Your task to perform on an android device: open app "Messenger Lite" (install if not already installed) and enter user name: "cataclysmic@outlook.com" and password: "victoriously" Image 0: 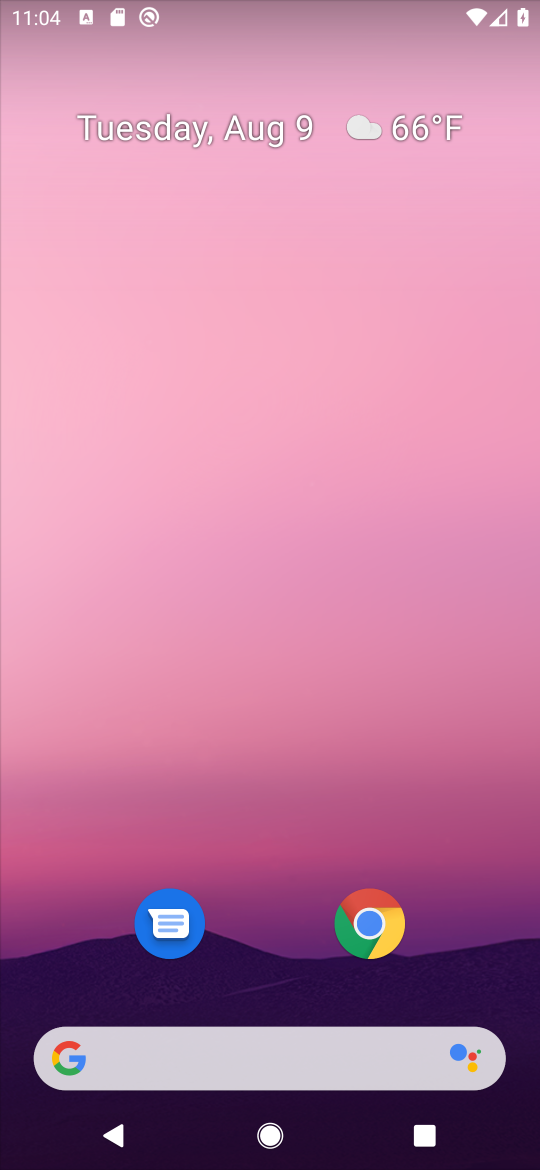
Step 0: press home button
Your task to perform on an android device: open app "Messenger Lite" (install if not already installed) and enter user name: "cataclysmic@outlook.com" and password: "victoriously" Image 1: 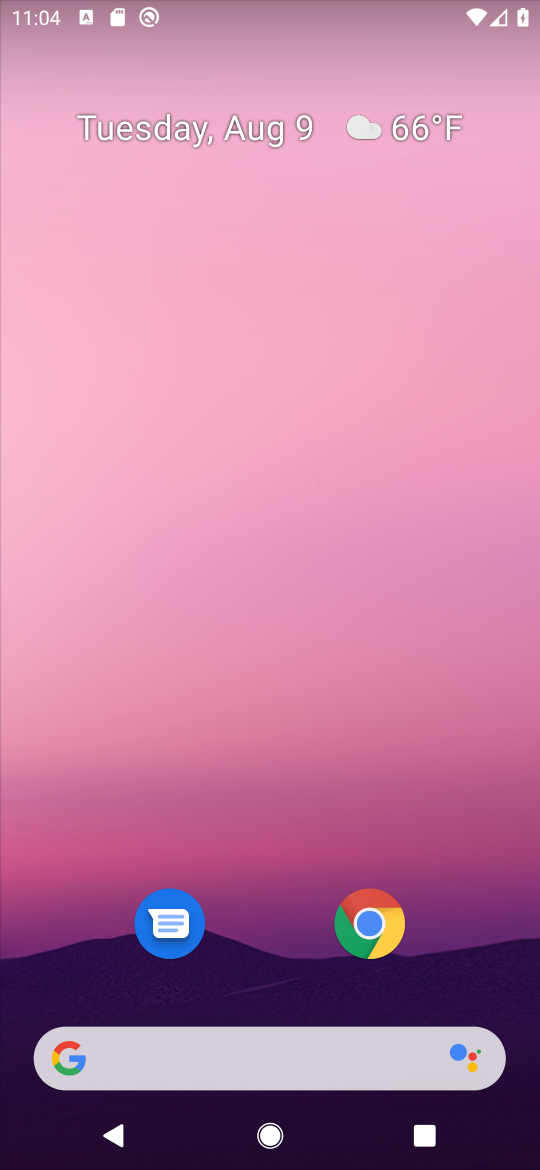
Step 1: drag from (263, 924) to (306, 98)
Your task to perform on an android device: open app "Messenger Lite" (install if not already installed) and enter user name: "cataclysmic@outlook.com" and password: "victoriously" Image 2: 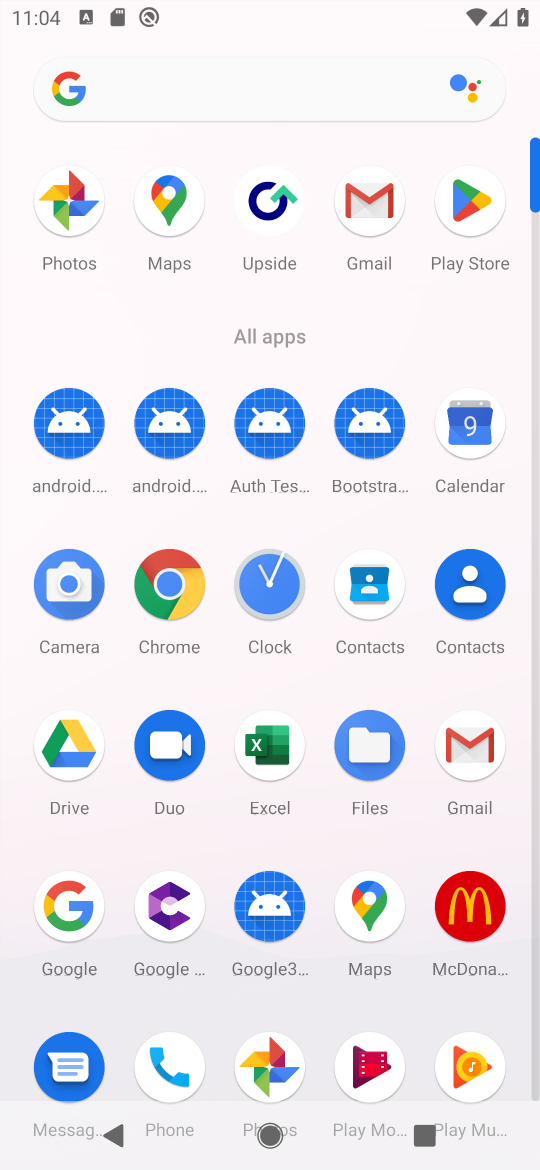
Step 2: click (460, 194)
Your task to perform on an android device: open app "Messenger Lite" (install if not already installed) and enter user name: "cataclysmic@outlook.com" and password: "victoriously" Image 3: 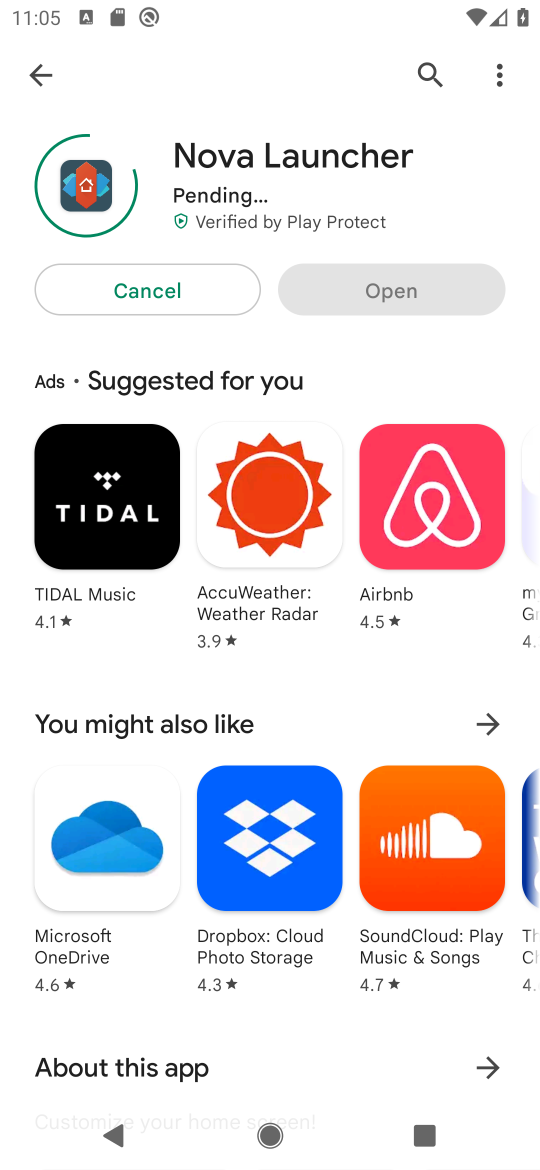
Step 3: click (40, 72)
Your task to perform on an android device: open app "Messenger Lite" (install if not already installed) and enter user name: "cataclysmic@outlook.com" and password: "victoriously" Image 4: 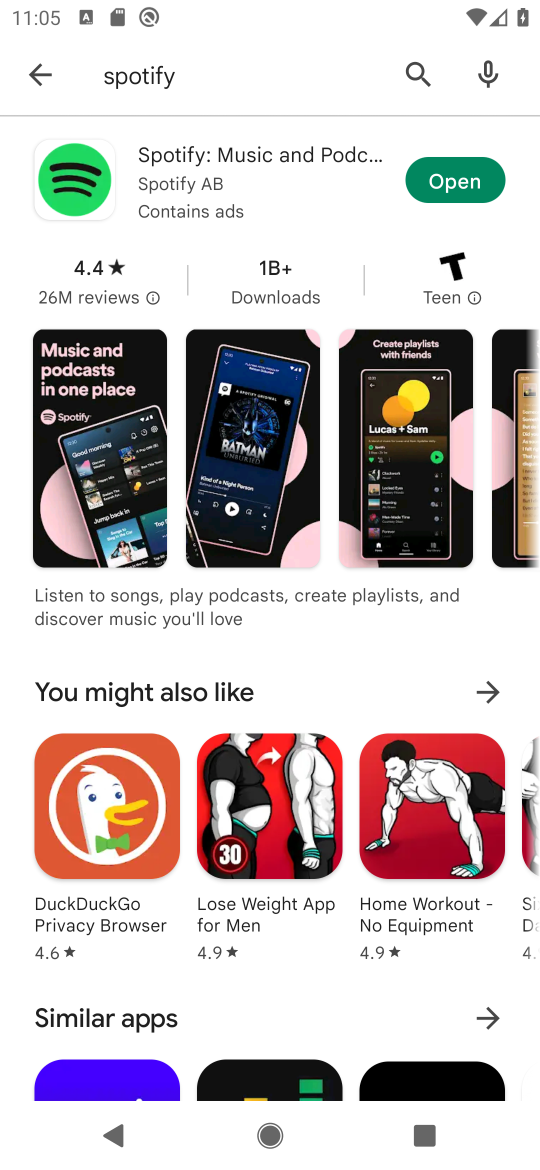
Step 4: click (408, 78)
Your task to perform on an android device: open app "Messenger Lite" (install if not already installed) and enter user name: "cataclysmic@outlook.com" and password: "victoriously" Image 5: 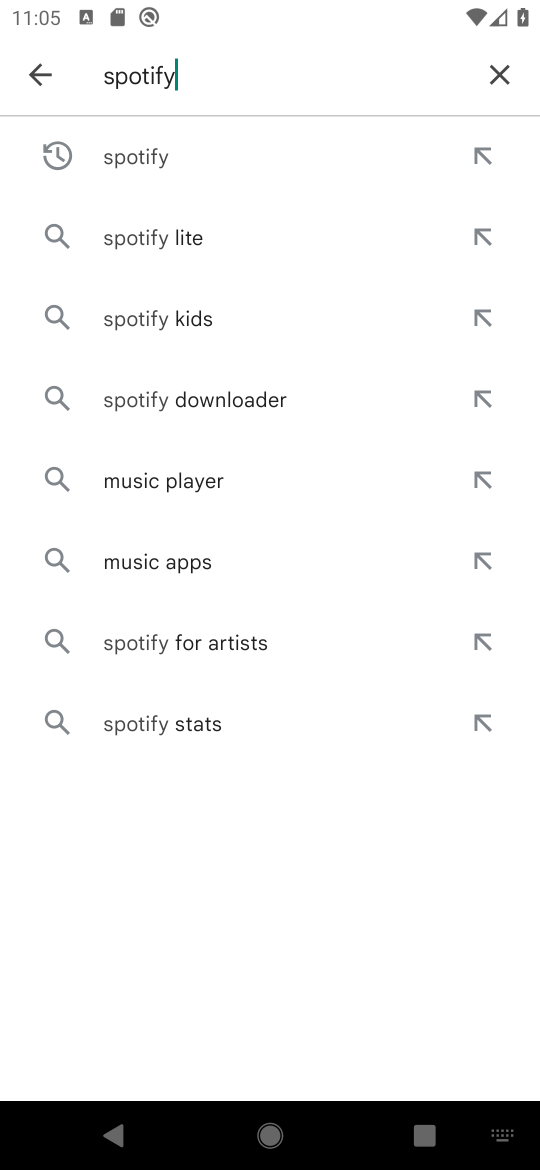
Step 5: click (502, 70)
Your task to perform on an android device: open app "Messenger Lite" (install if not already installed) and enter user name: "cataclysmic@outlook.com" and password: "victoriously" Image 6: 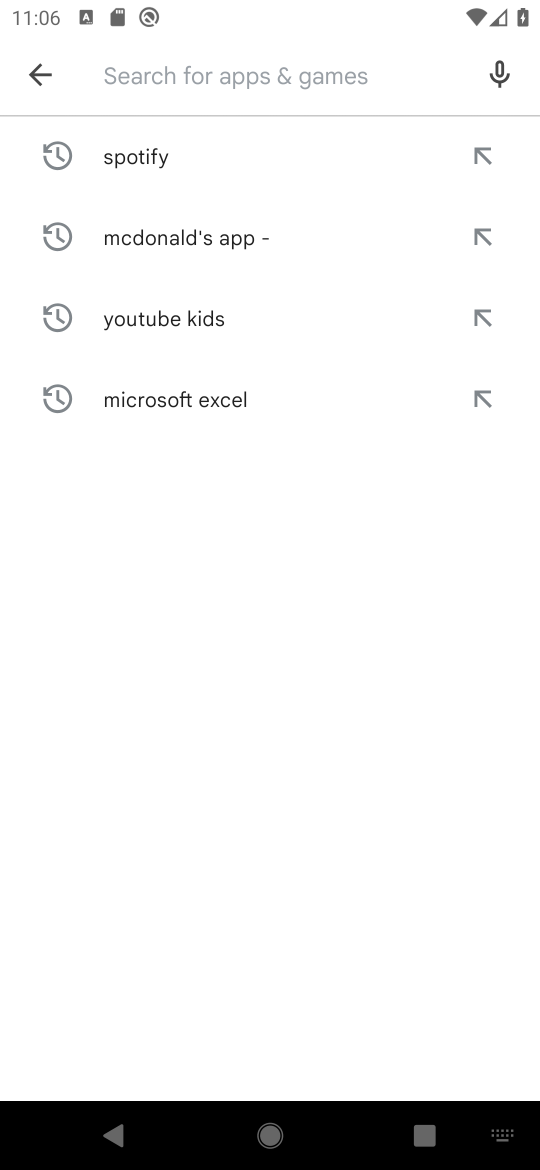
Step 6: type "Messenger Lite"
Your task to perform on an android device: open app "Messenger Lite" (install if not already installed) and enter user name: "cataclysmic@outlook.com" and password: "victoriously" Image 7: 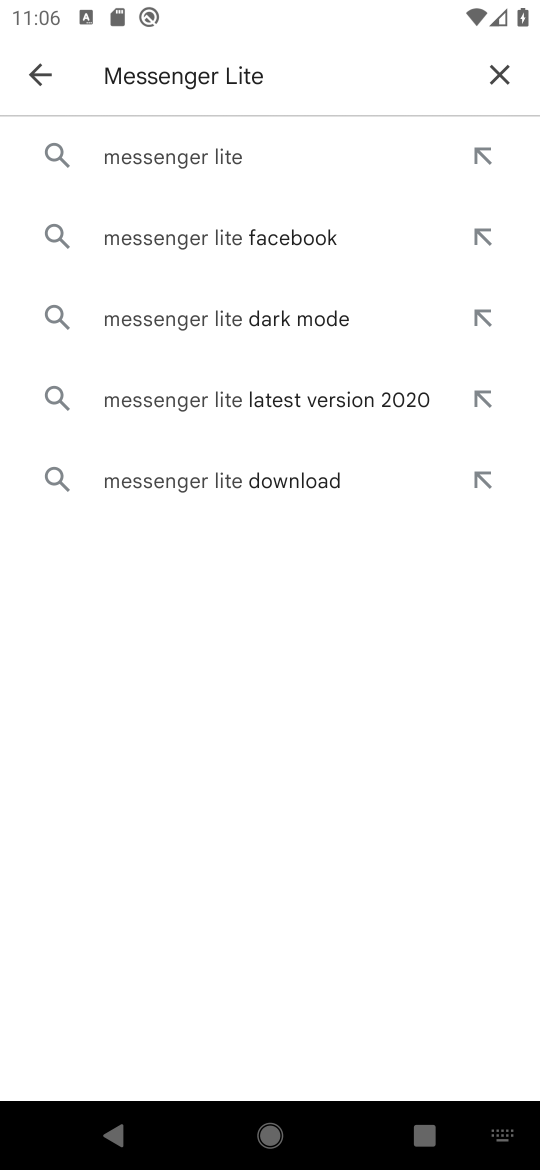
Step 7: click (258, 149)
Your task to perform on an android device: open app "Messenger Lite" (install if not already installed) and enter user name: "cataclysmic@outlook.com" and password: "victoriously" Image 8: 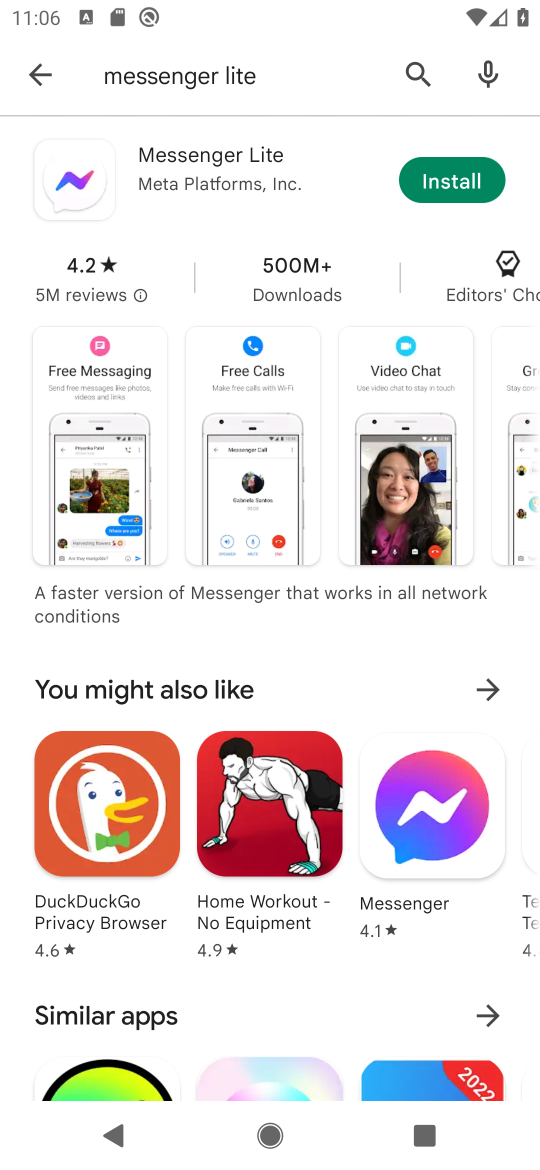
Step 8: click (455, 175)
Your task to perform on an android device: open app "Messenger Lite" (install if not already installed) and enter user name: "cataclysmic@outlook.com" and password: "victoriously" Image 9: 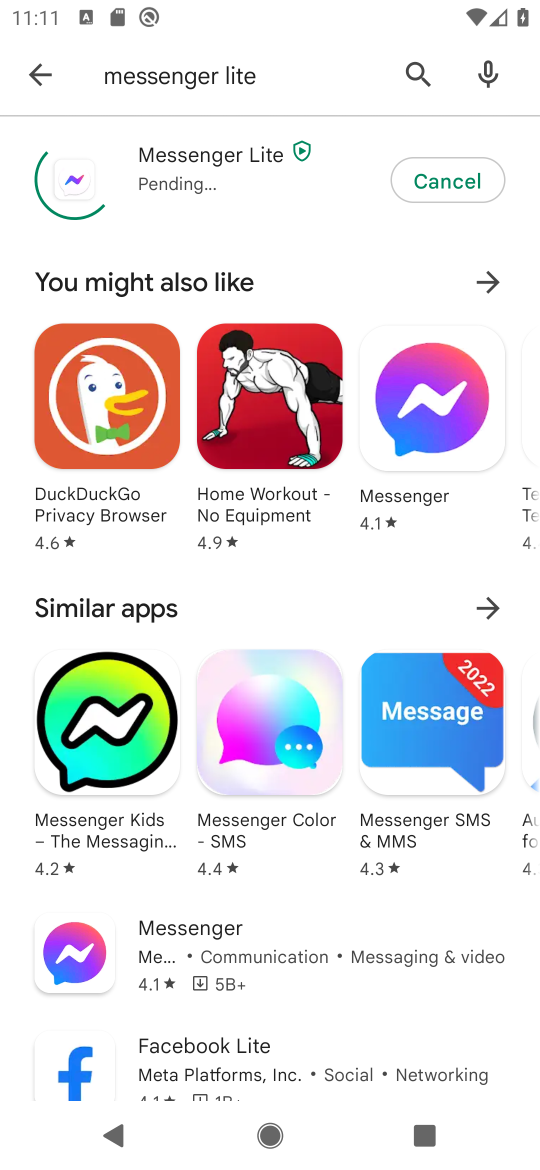
Step 9: task complete